Your task to perform on an android device: turn off notifications settings in the gmail app Image 0: 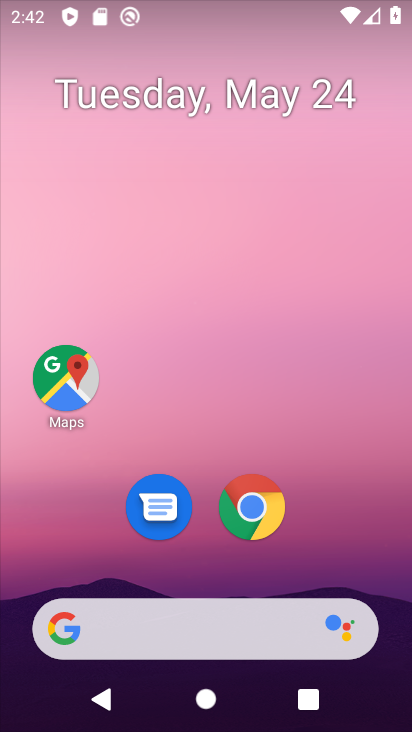
Step 0: drag from (208, 534) to (287, 56)
Your task to perform on an android device: turn off notifications settings in the gmail app Image 1: 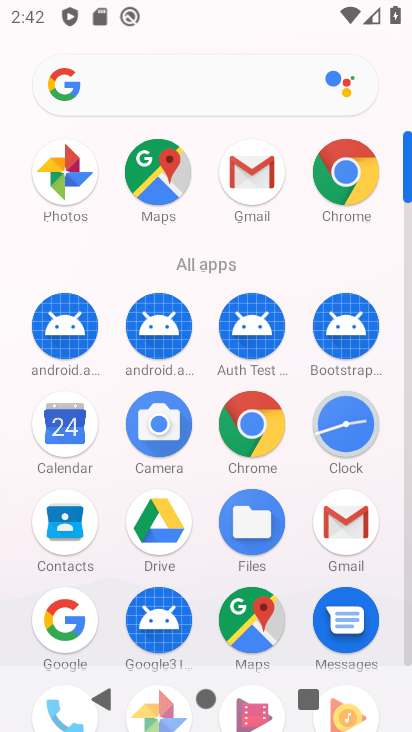
Step 1: click (245, 180)
Your task to perform on an android device: turn off notifications settings in the gmail app Image 2: 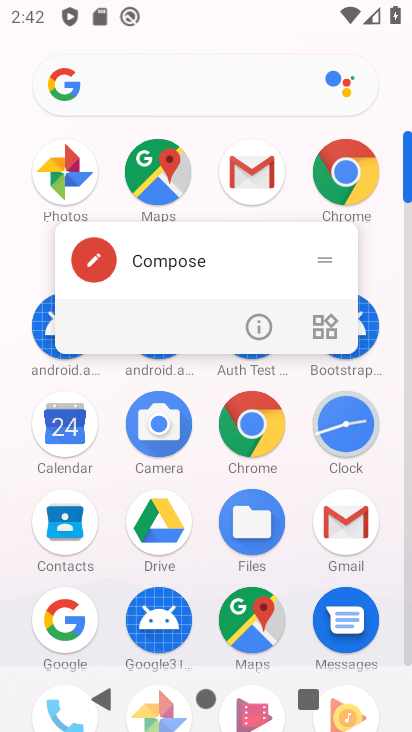
Step 2: click (243, 331)
Your task to perform on an android device: turn off notifications settings in the gmail app Image 3: 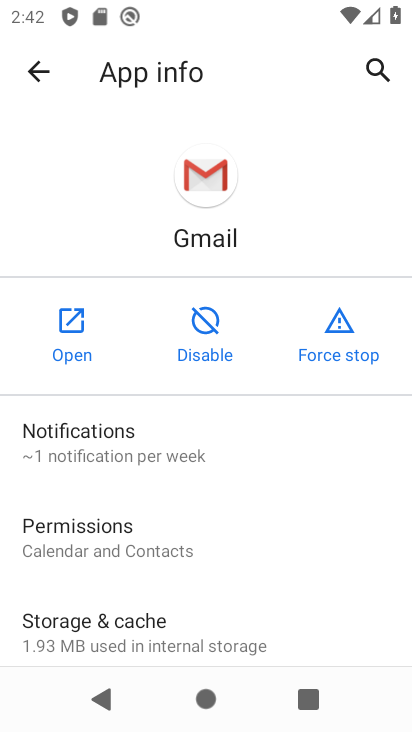
Step 3: click (187, 442)
Your task to perform on an android device: turn off notifications settings in the gmail app Image 4: 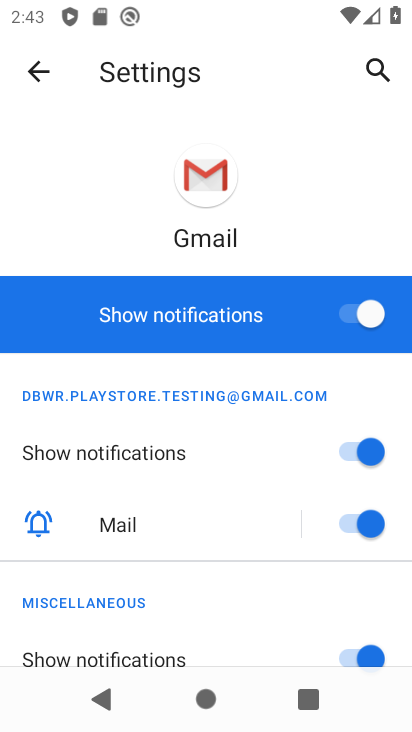
Step 4: click (362, 321)
Your task to perform on an android device: turn off notifications settings in the gmail app Image 5: 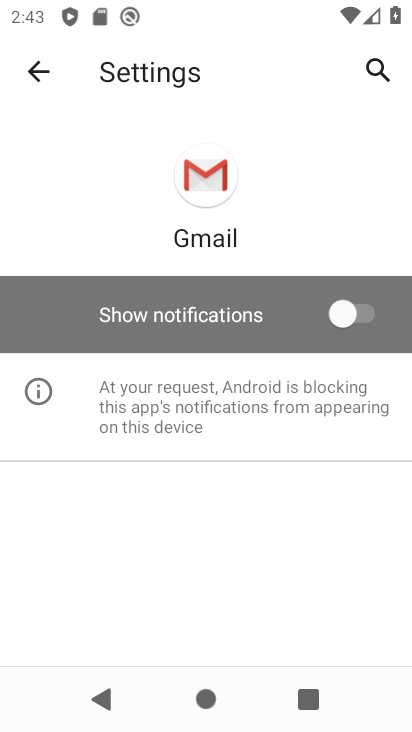
Step 5: task complete